Your task to perform on an android device: Open privacy settings Image 0: 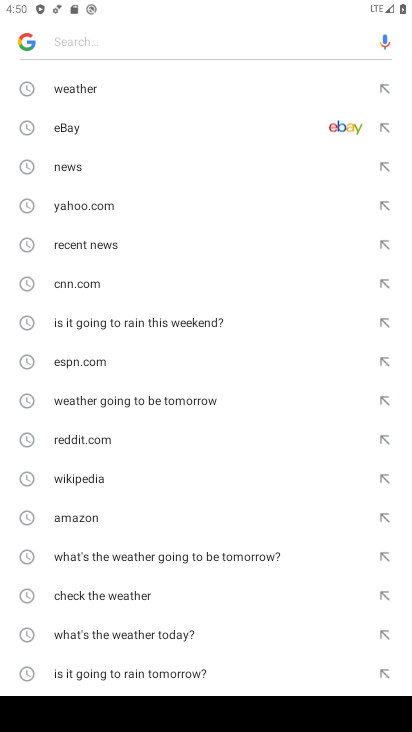
Step 0: press home button
Your task to perform on an android device: Open privacy settings Image 1: 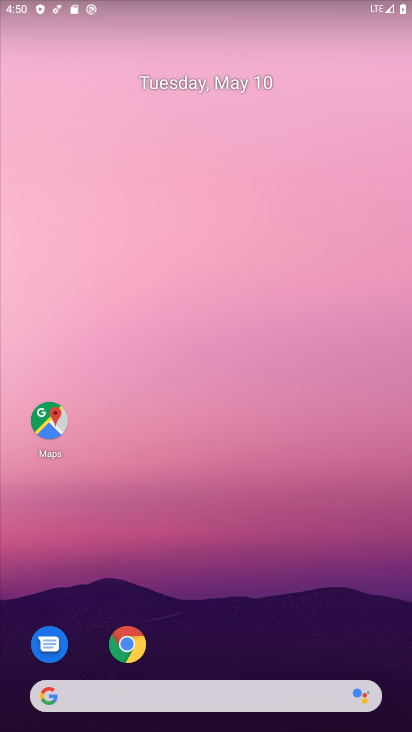
Step 1: drag from (218, 660) to (260, 98)
Your task to perform on an android device: Open privacy settings Image 2: 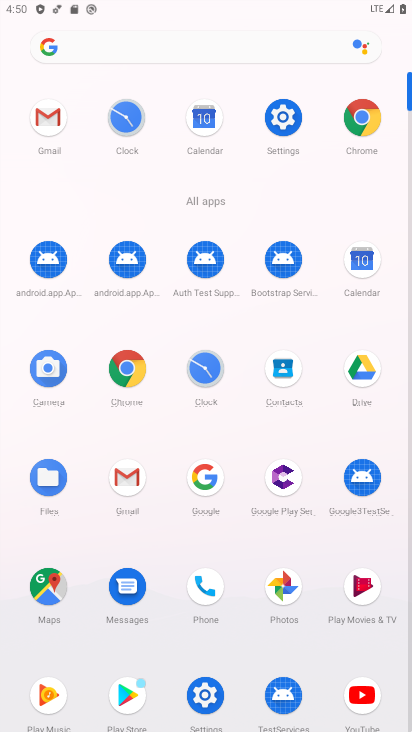
Step 2: click (280, 112)
Your task to perform on an android device: Open privacy settings Image 3: 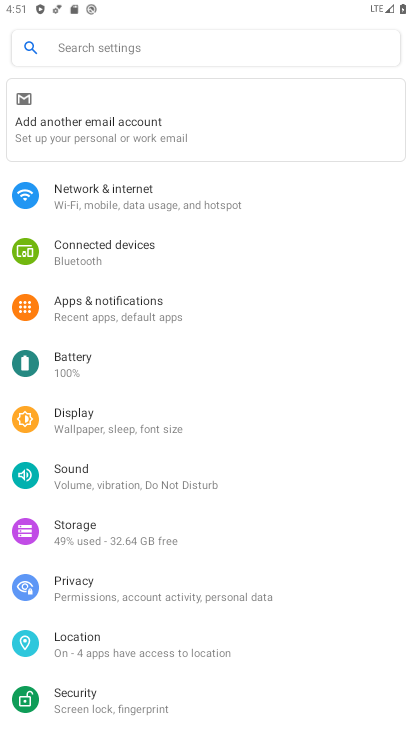
Step 3: click (96, 581)
Your task to perform on an android device: Open privacy settings Image 4: 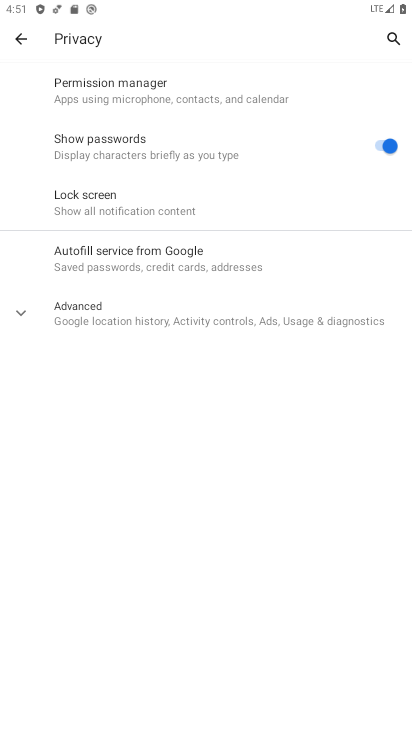
Step 4: click (16, 311)
Your task to perform on an android device: Open privacy settings Image 5: 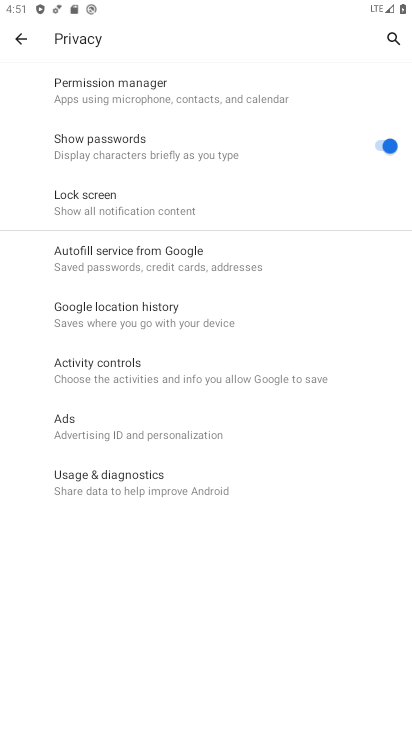
Step 5: task complete